Your task to perform on an android device: Go to Amazon Image 0: 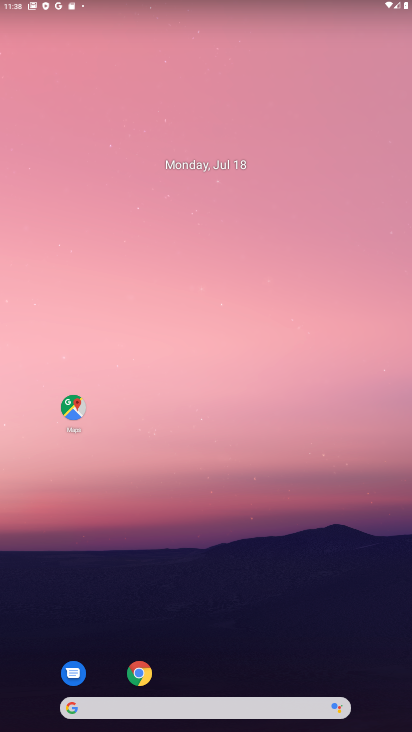
Step 0: click (137, 673)
Your task to perform on an android device: Go to Amazon Image 1: 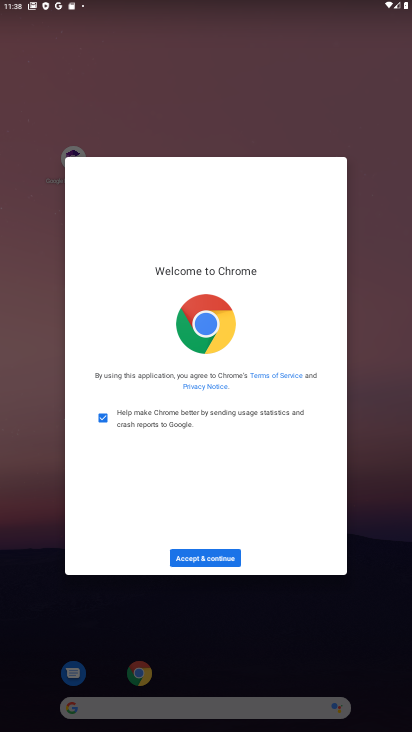
Step 1: click (218, 551)
Your task to perform on an android device: Go to Amazon Image 2: 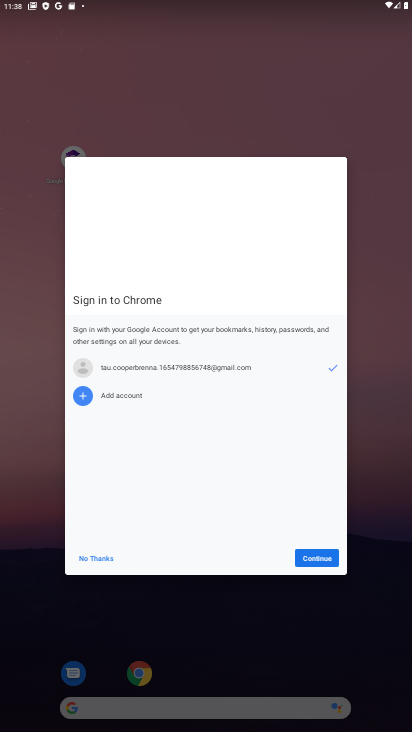
Step 2: click (323, 557)
Your task to perform on an android device: Go to Amazon Image 3: 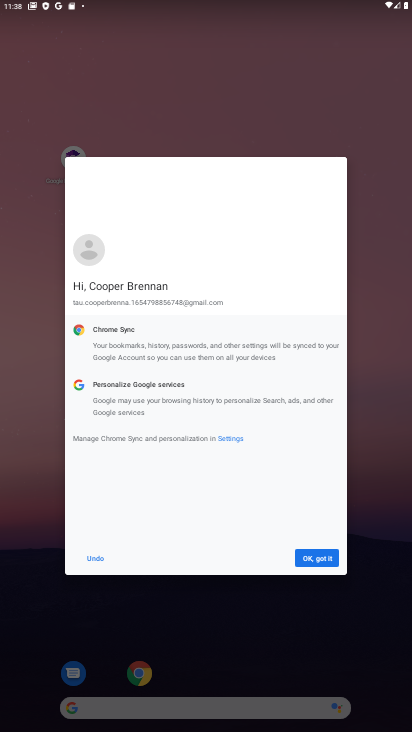
Step 3: click (313, 561)
Your task to perform on an android device: Go to Amazon Image 4: 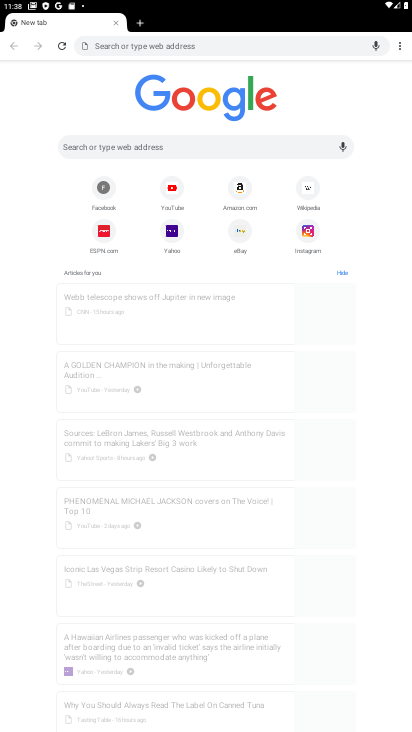
Step 4: click (241, 193)
Your task to perform on an android device: Go to Amazon Image 5: 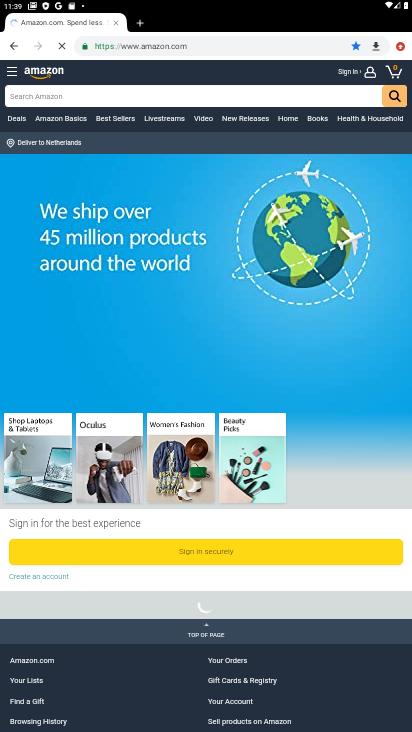
Step 5: task complete